Your task to perform on an android device: What's the weather going to be tomorrow? Image 0: 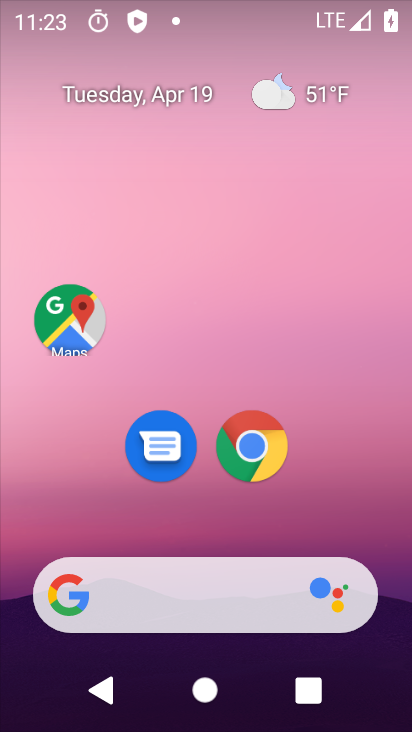
Step 0: drag from (364, 523) to (317, 106)
Your task to perform on an android device: What's the weather going to be tomorrow? Image 1: 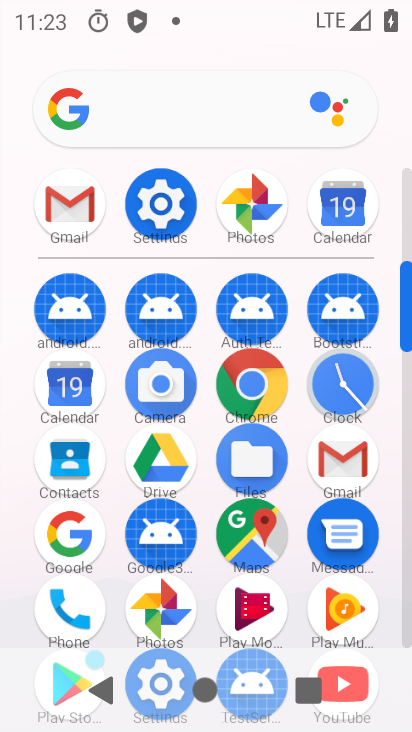
Step 1: click (163, 209)
Your task to perform on an android device: What's the weather going to be tomorrow? Image 2: 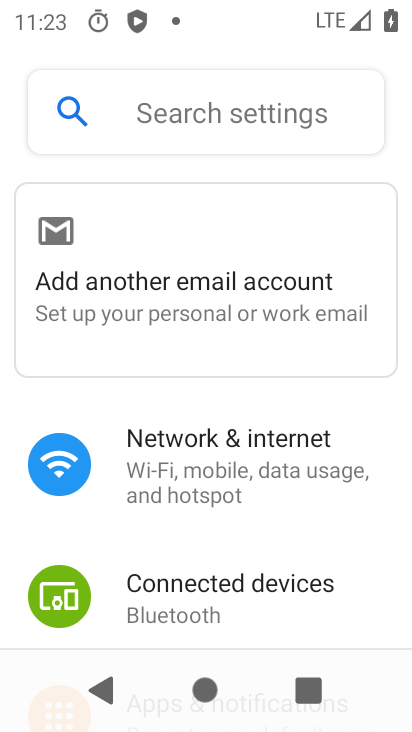
Step 2: click (152, 479)
Your task to perform on an android device: What's the weather going to be tomorrow? Image 3: 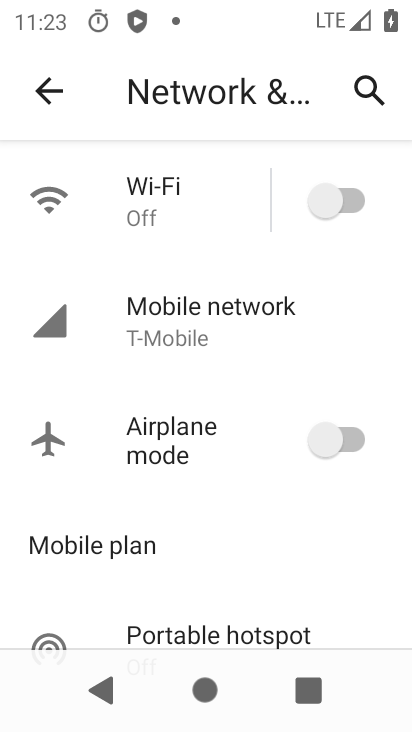
Step 3: click (343, 200)
Your task to perform on an android device: What's the weather going to be tomorrow? Image 4: 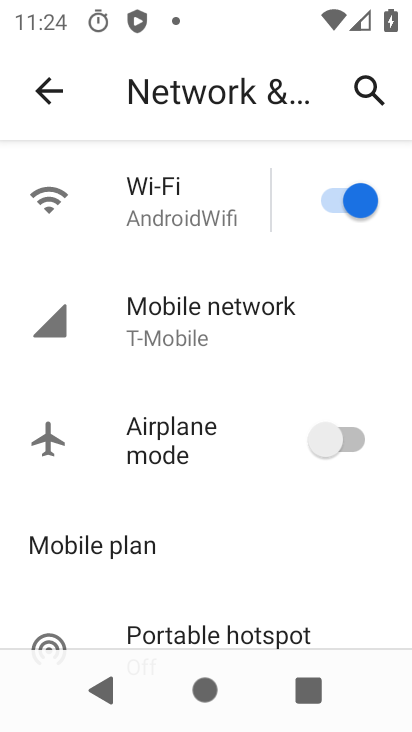
Step 4: click (34, 96)
Your task to perform on an android device: What's the weather going to be tomorrow? Image 5: 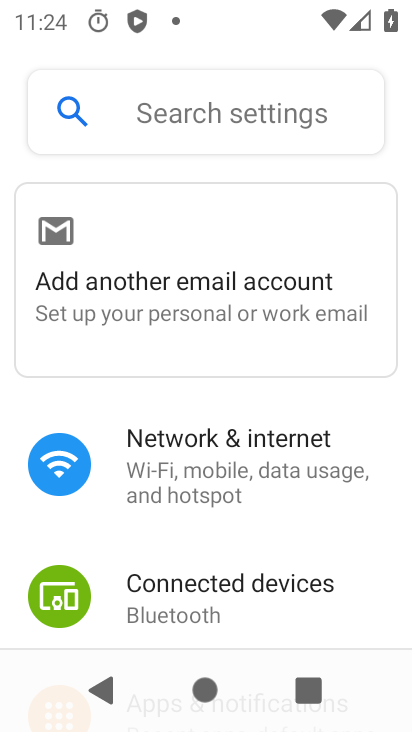
Step 5: press back button
Your task to perform on an android device: What's the weather going to be tomorrow? Image 6: 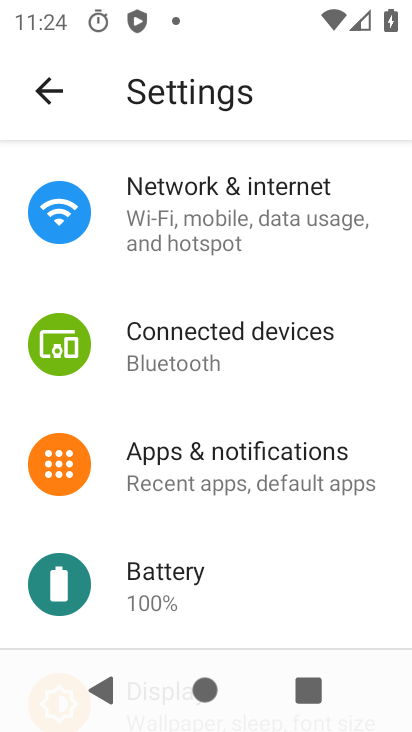
Step 6: press back button
Your task to perform on an android device: What's the weather going to be tomorrow? Image 7: 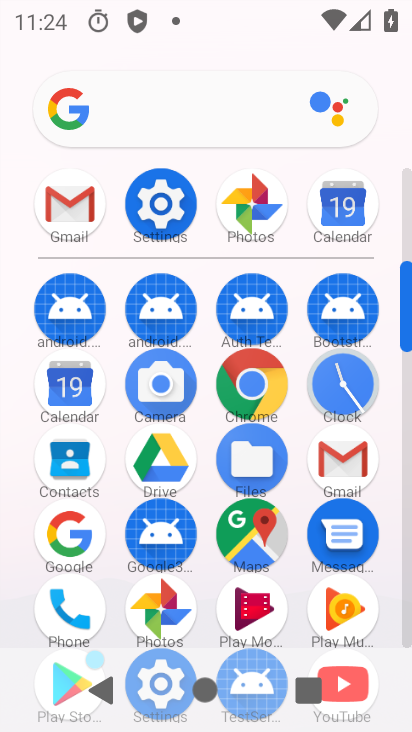
Step 7: press back button
Your task to perform on an android device: What's the weather going to be tomorrow? Image 8: 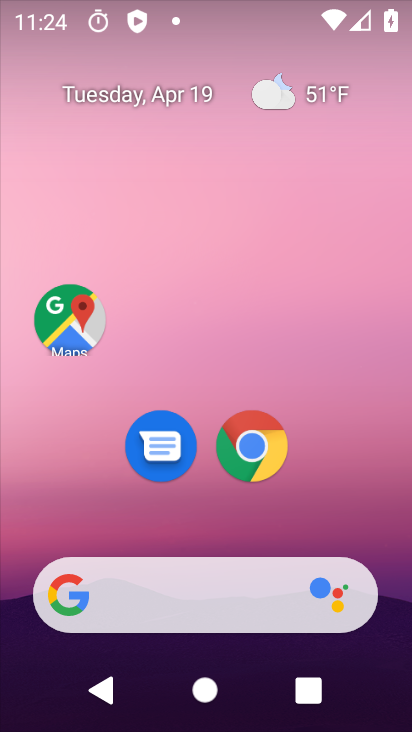
Step 8: drag from (377, 276) to (401, 134)
Your task to perform on an android device: What's the weather going to be tomorrow? Image 9: 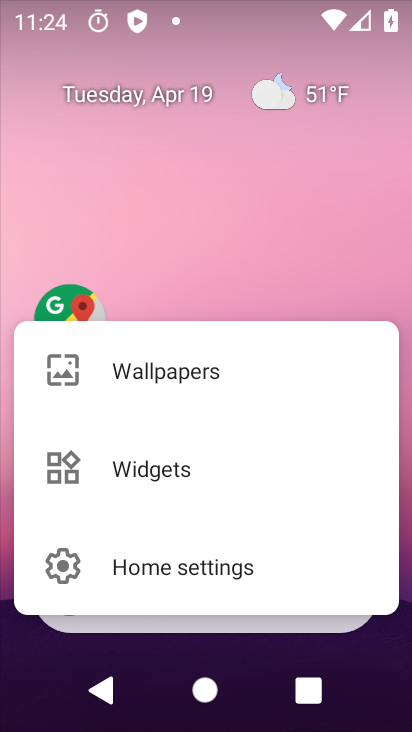
Step 9: click (307, 164)
Your task to perform on an android device: What's the weather going to be tomorrow? Image 10: 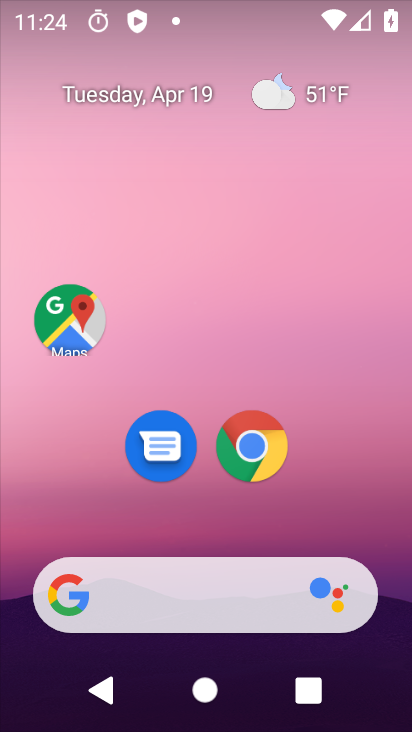
Step 10: click (315, 90)
Your task to perform on an android device: What's the weather going to be tomorrow? Image 11: 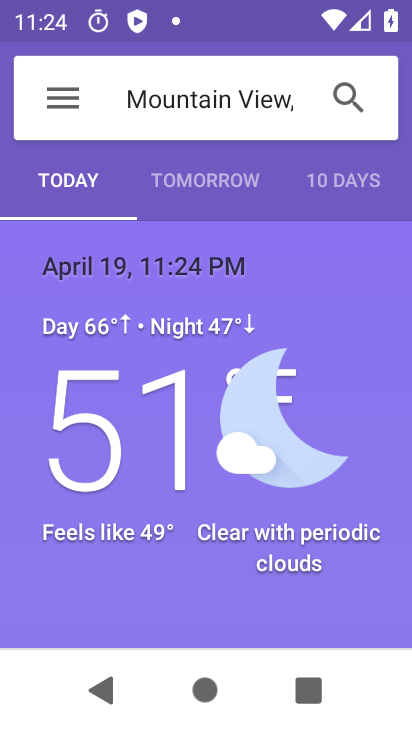
Step 11: click (190, 178)
Your task to perform on an android device: What's the weather going to be tomorrow? Image 12: 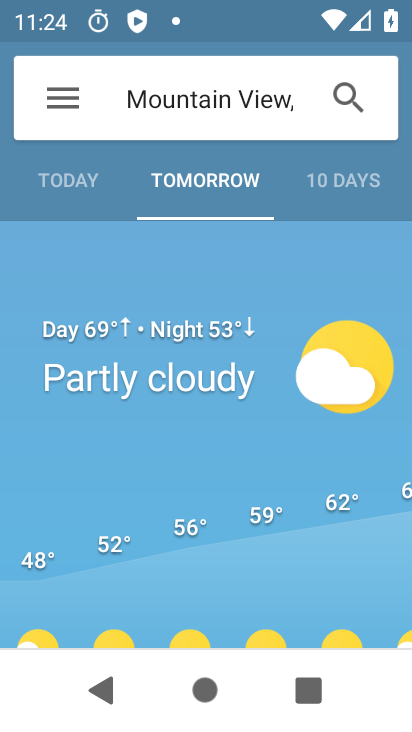
Step 12: task complete